Your task to perform on an android device: Is it going to rain today? Image 0: 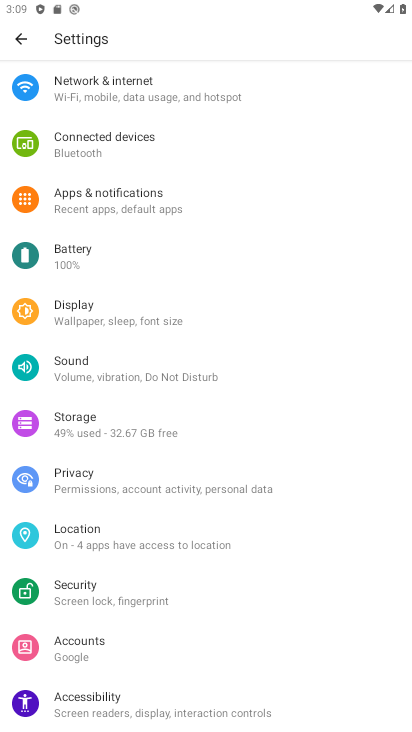
Step 0: press home button
Your task to perform on an android device: Is it going to rain today? Image 1: 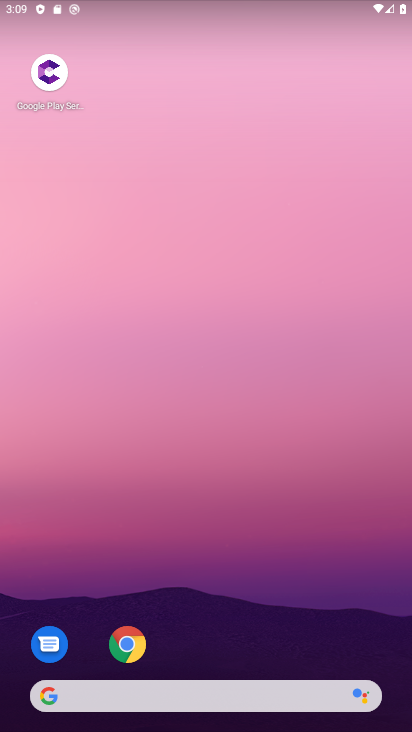
Step 1: drag from (240, 654) to (211, 190)
Your task to perform on an android device: Is it going to rain today? Image 2: 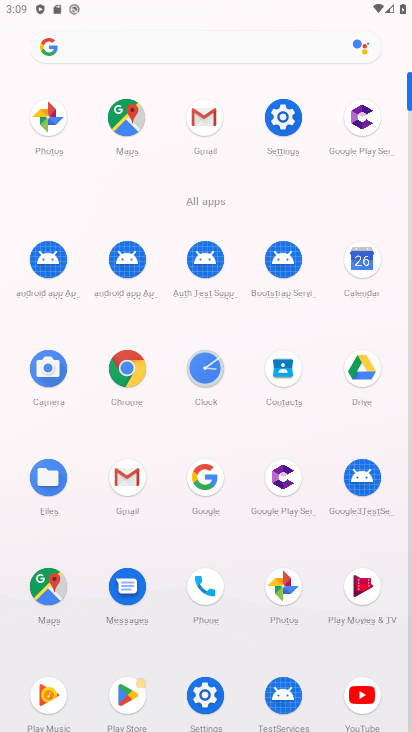
Step 2: click (126, 366)
Your task to perform on an android device: Is it going to rain today? Image 3: 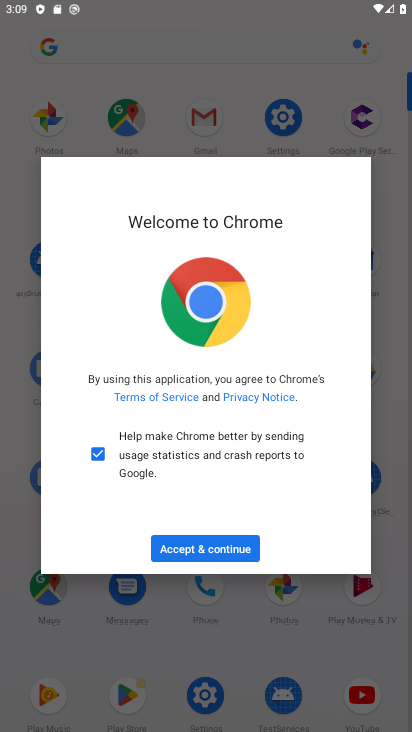
Step 3: click (228, 548)
Your task to perform on an android device: Is it going to rain today? Image 4: 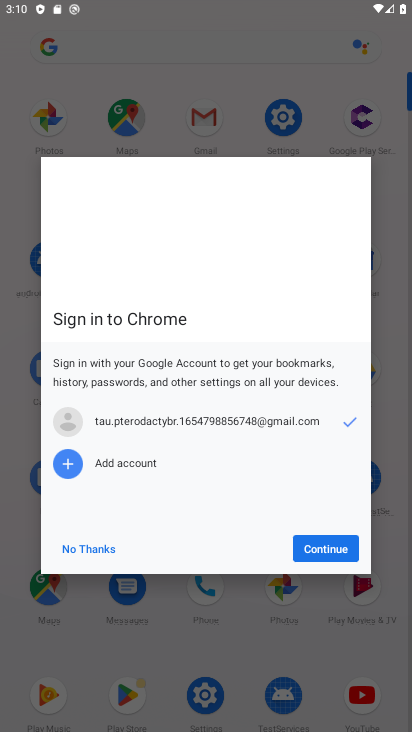
Step 4: click (315, 559)
Your task to perform on an android device: Is it going to rain today? Image 5: 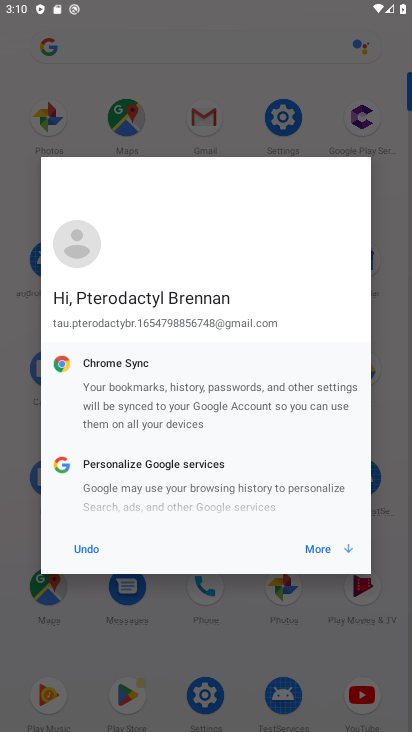
Step 5: click (339, 545)
Your task to perform on an android device: Is it going to rain today? Image 6: 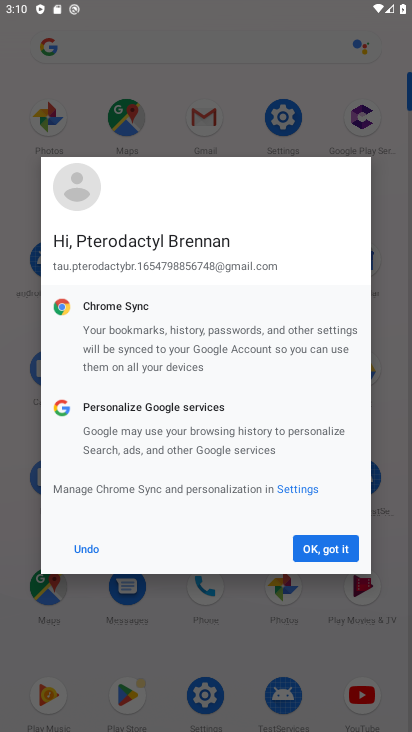
Step 6: click (329, 547)
Your task to perform on an android device: Is it going to rain today? Image 7: 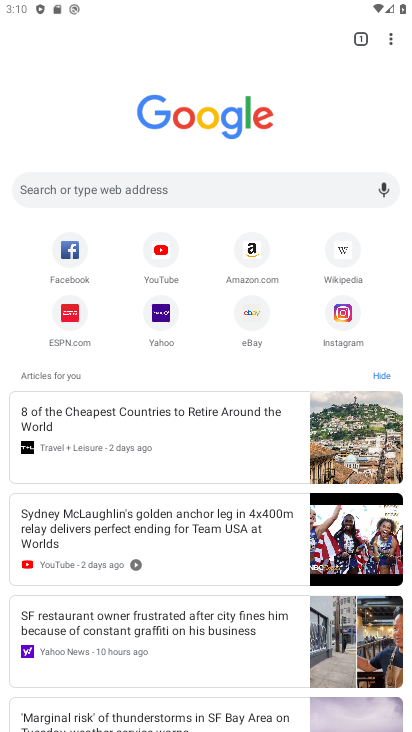
Step 7: click (164, 186)
Your task to perform on an android device: Is it going to rain today? Image 8: 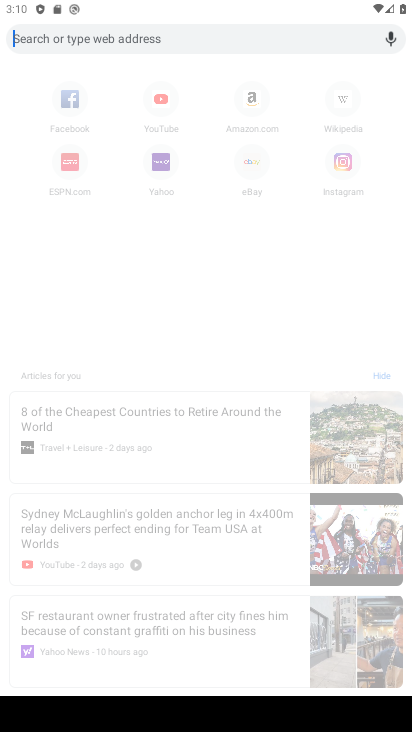
Step 8: type "Is it going to rain today?"
Your task to perform on an android device: Is it going to rain today? Image 9: 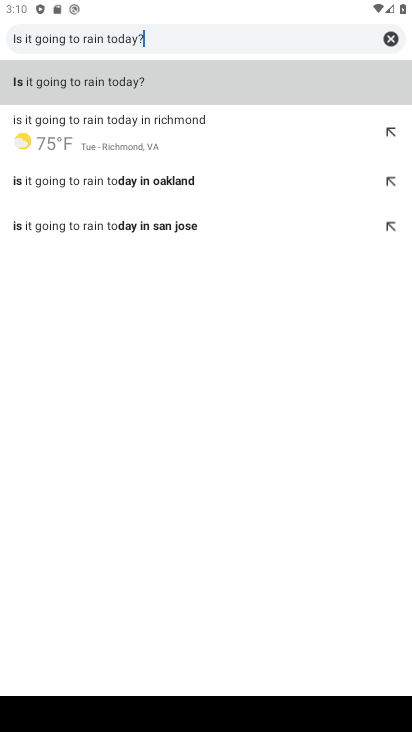
Step 9: click (231, 70)
Your task to perform on an android device: Is it going to rain today? Image 10: 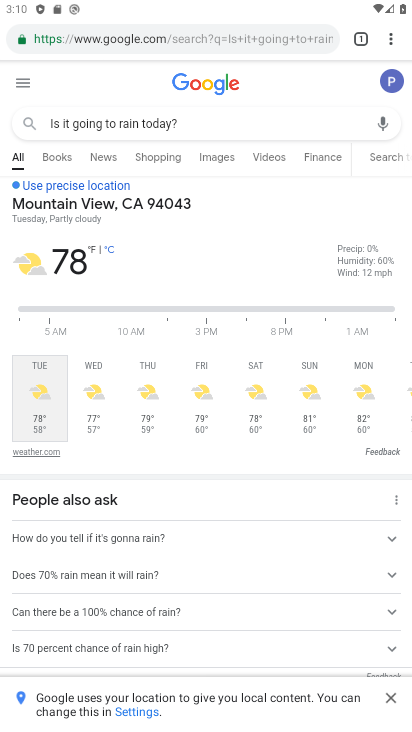
Step 10: task complete